Your task to perform on an android device: Open the map Image 0: 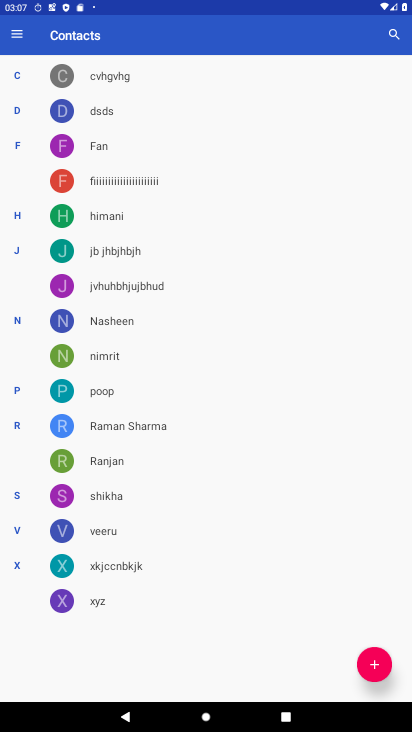
Step 0: press home button
Your task to perform on an android device: Open the map Image 1: 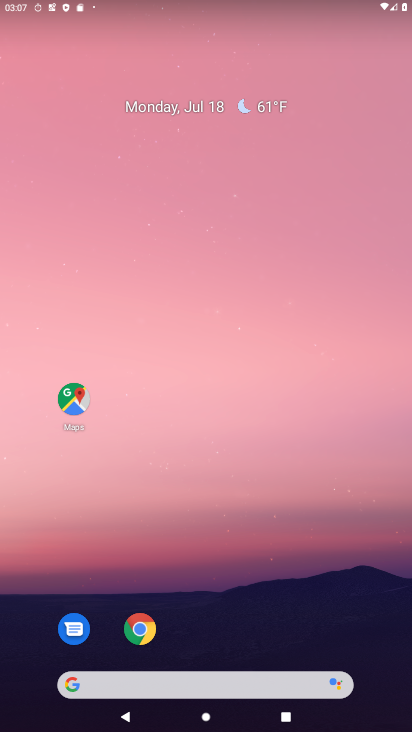
Step 1: click (69, 400)
Your task to perform on an android device: Open the map Image 2: 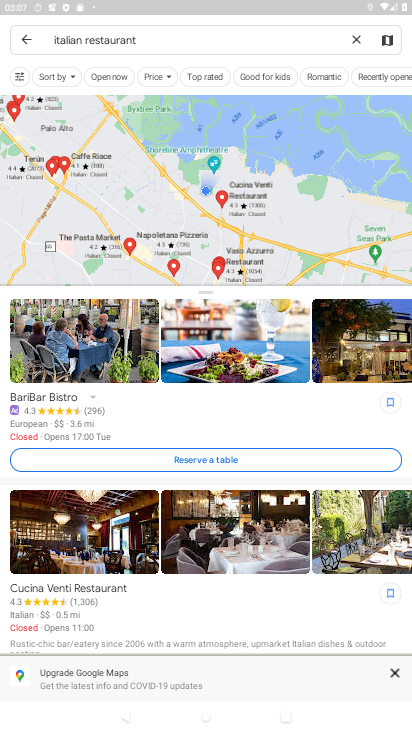
Step 2: task complete